Your task to perform on an android device: turn off location history Image 0: 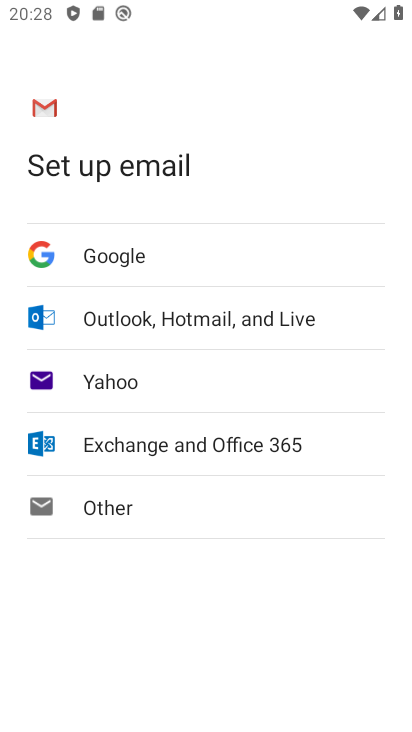
Step 0: press home button
Your task to perform on an android device: turn off location history Image 1: 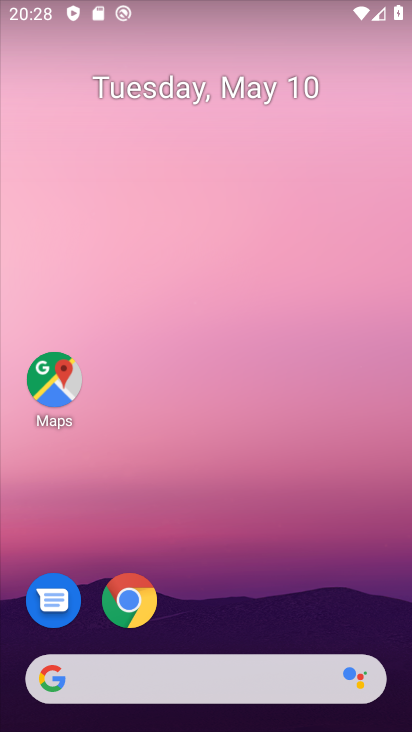
Step 1: drag from (182, 641) to (346, 111)
Your task to perform on an android device: turn off location history Image 2: 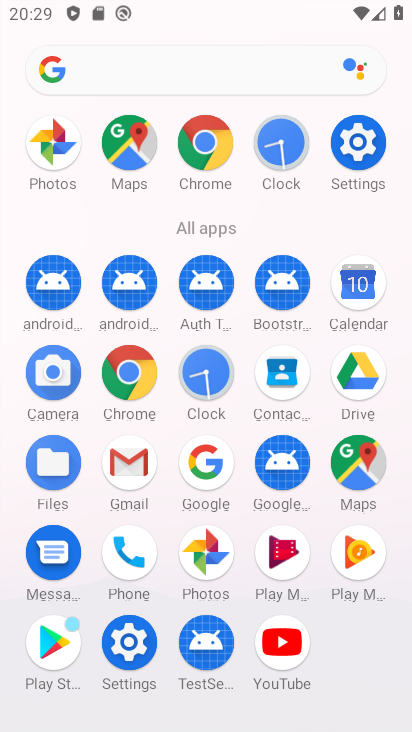
Step 2: click (129, 646)
Your task to perform on an android device: turn off location history Image 3: 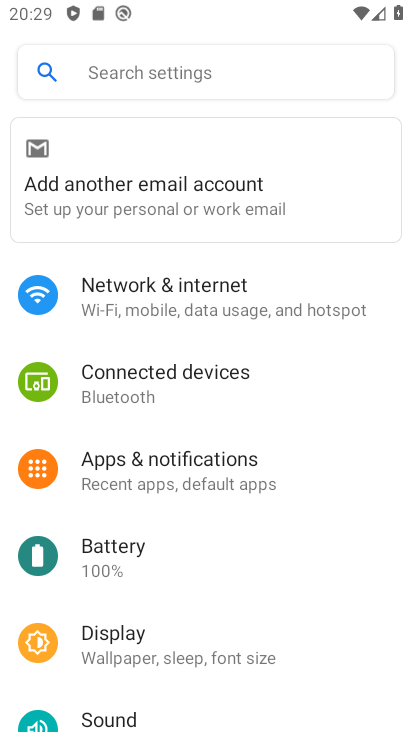
Step 3: drag from (218, 635) to (315, 258)
Your task to perform on an android device: turn off location history Image 4: 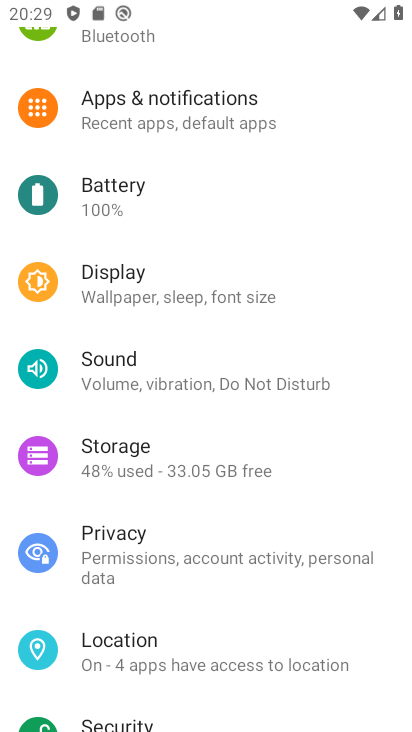
Step 4: click (174, 642)
Your task to perform on an android device: turn off location history Image 5: 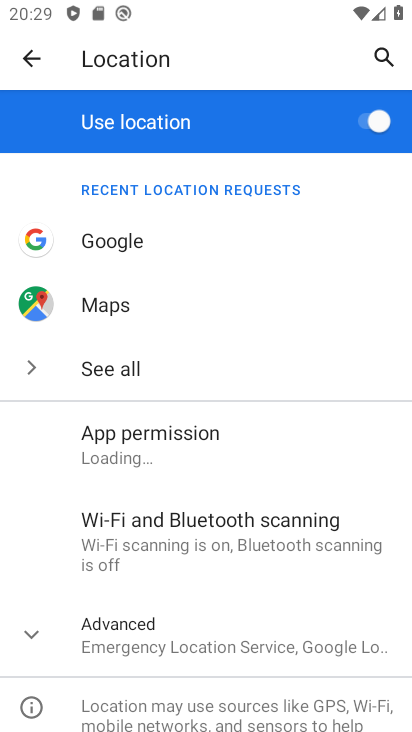
Step 5: click (112, 634)
Your task to perform on an android device: turn off location history Image 6: 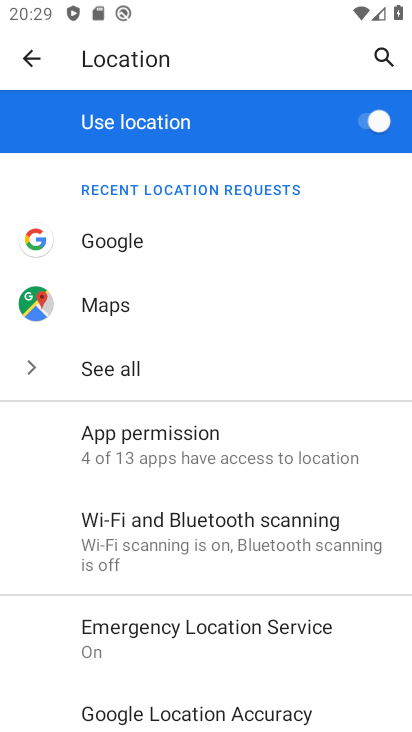
Step 6: drag from (171, 654) to (292, 435)
Your task to perform on an android device: turn off location history Image 7: 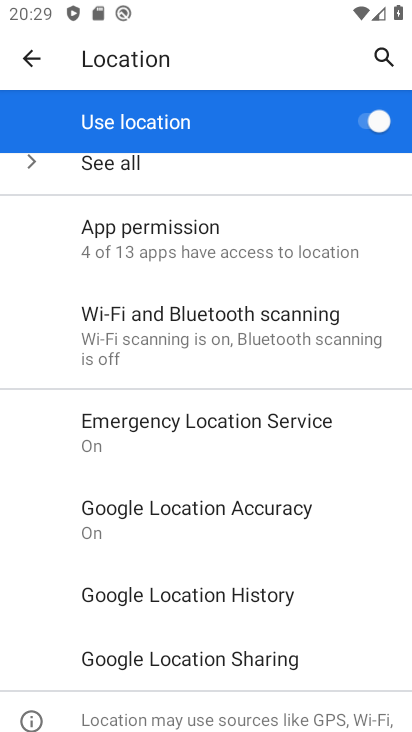
Step 7: click (236, 604)
Your task to perform on an android device: turn off location history Image 8: 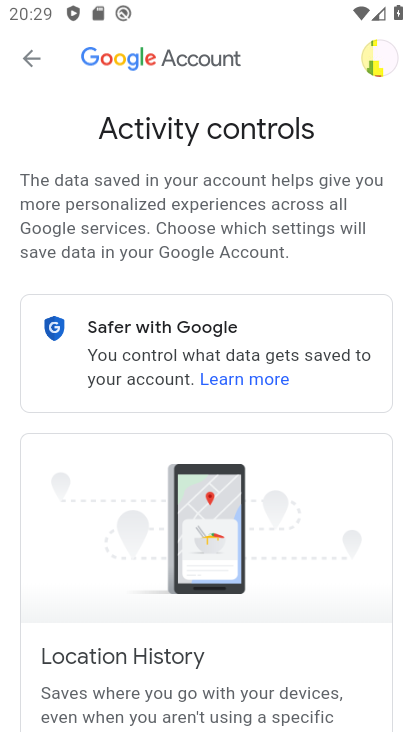
Step 8: drag from (171, 628) to (262, 282)
Your task to perform on an android device: turn off location history Image 9: 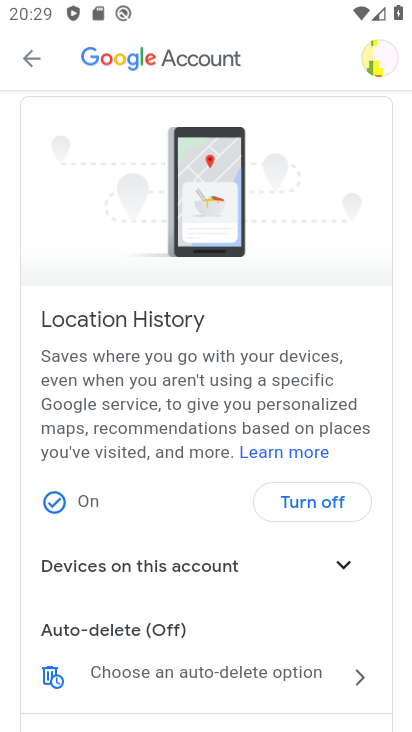
Step 9: click (326, 508)
Your task to perform on an android device: turn off location history Image 10: 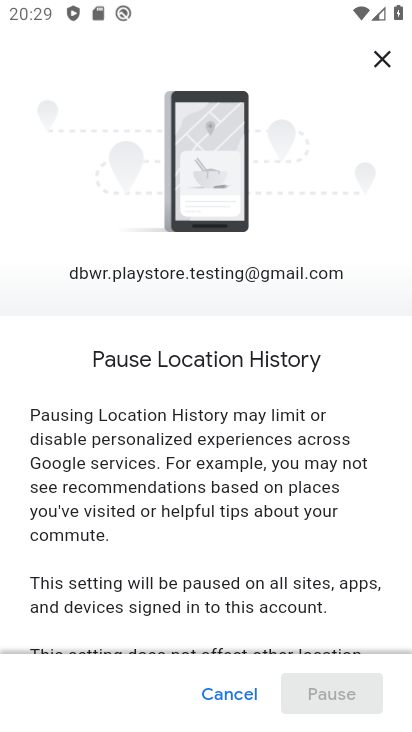
Step 10: drag from (219, 621) to (341, 134)
Your task to perform on an android device: turn off location history Image 11: 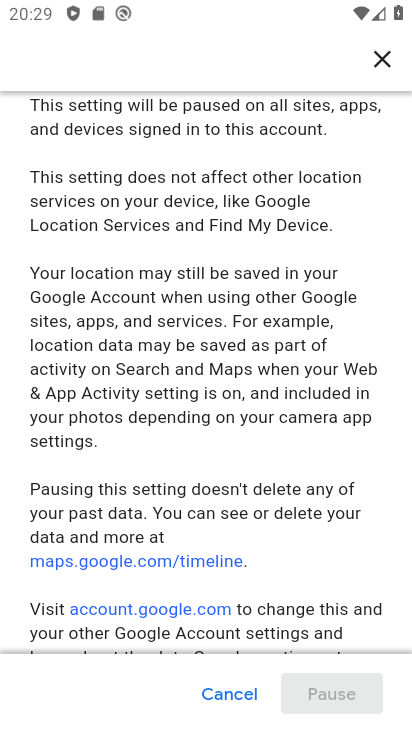
Step 11: drag from (202, 622) to (343, 163)
Your task to perform on an android device: turn off location history Image 12: 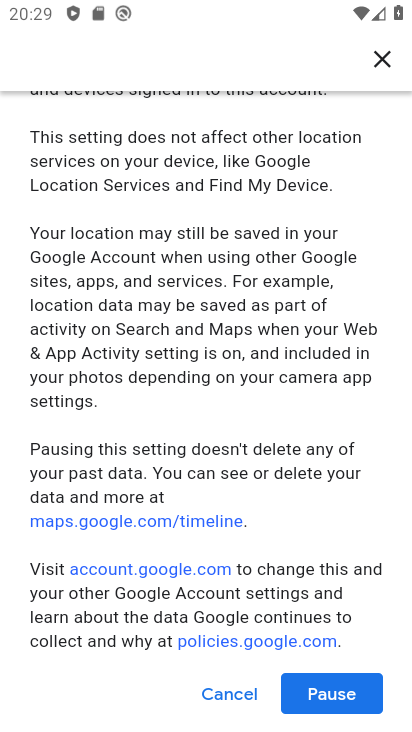
Step 12: click (340, 685)
Your task to perform on an android device: turn off location history Image 13: 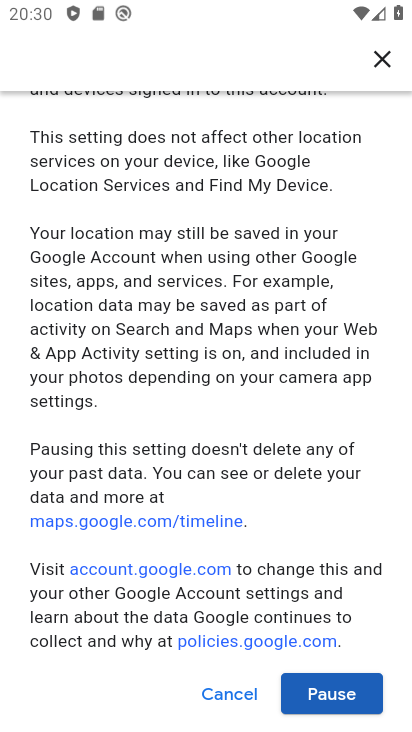
Step 13: click (343, 703)
Your task to perform on an android device: turn off location history Image 14: 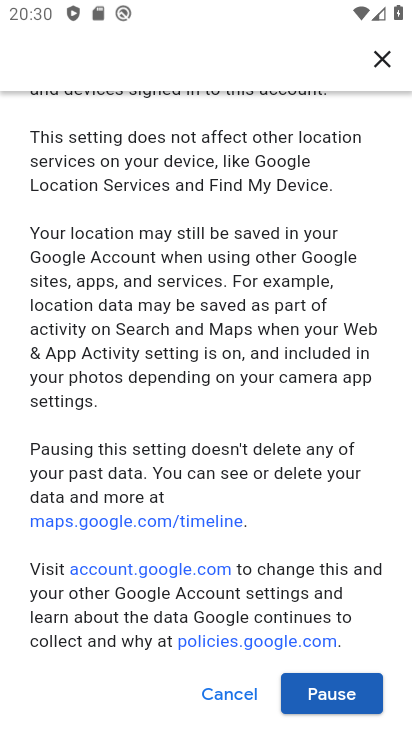
Step 14: drag from (157, 560) to (298, 184)
Your task to perform on an android device: turn off location history Image 15: 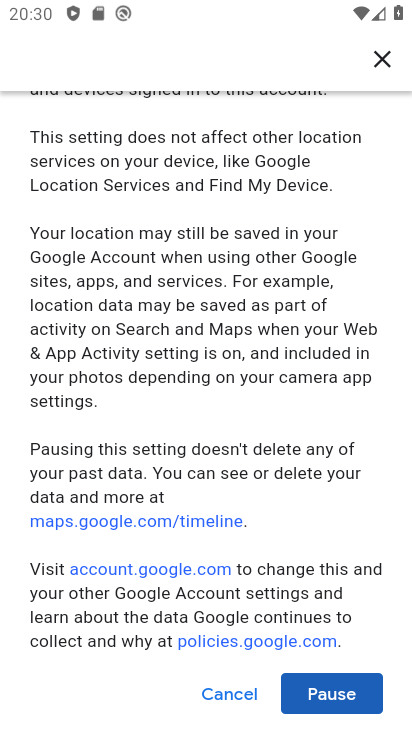
Step 15: click (316, 705)
Your task to perform on an android device: turn off location history Image 16: 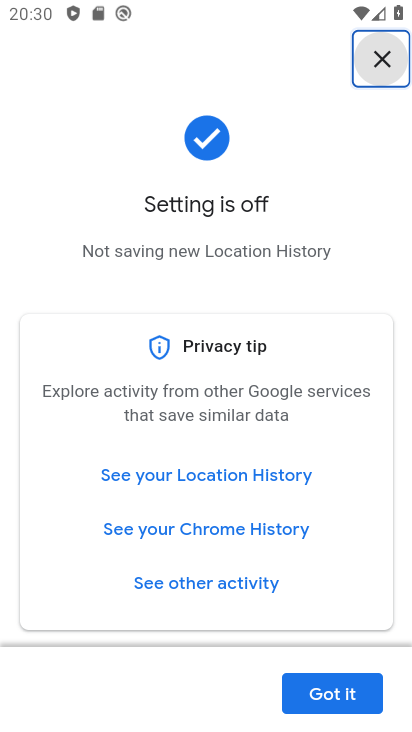
Step 16: click (353, 697)
Your task to perform on an android device: turn off location history Image 17: 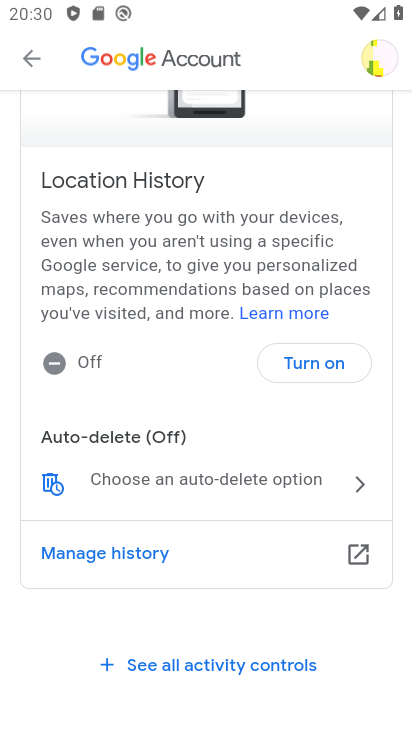
Step 17: task complete